Your task to perform on an android device: find which apps use the phone's location Image 0: 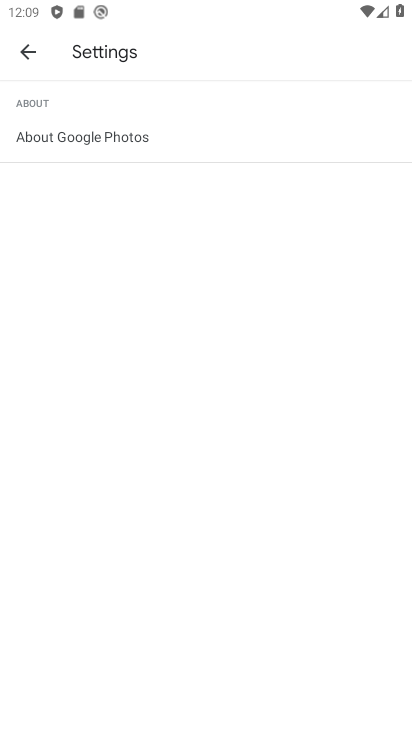
Step 0: press home button
Your task to perform on an android device: find which apps use the phone's location Image 1: 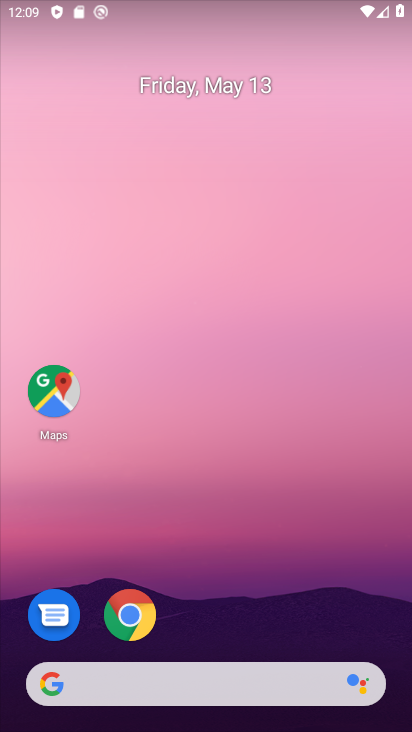
Step 1: drag from (181, 610) to (312, 207)
Your task to perform on an android device: find which apps use the phone's location Image 2: 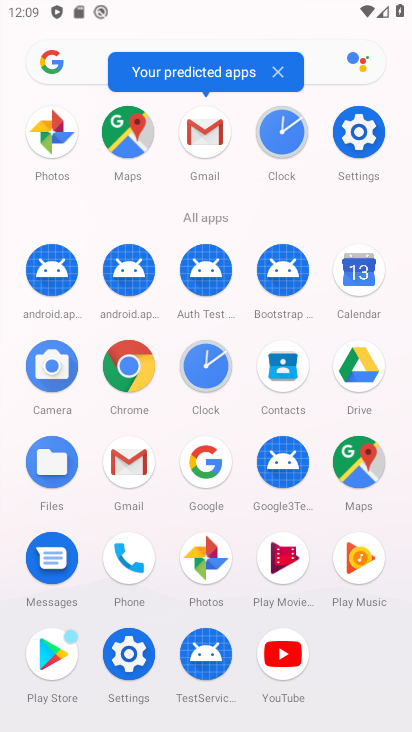
Step 2: click (141, 654)
Your task to perform on an android device: find which apps use the phone's location Image 3: 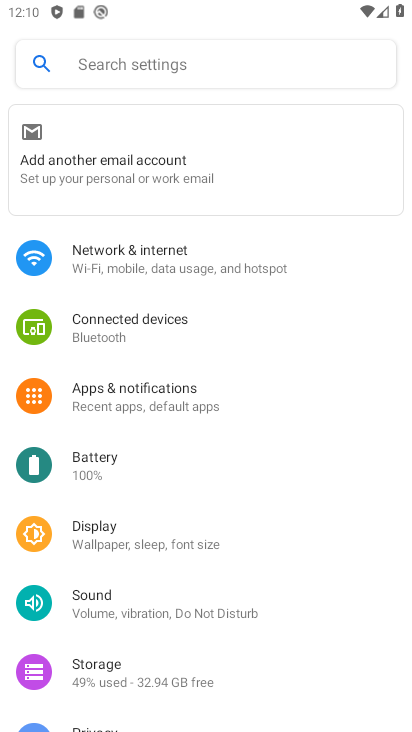
Step 3: drag from (117, 640) to (213, 249)
Your task to perform on an android device: find which apps use the phone's location Image 4: 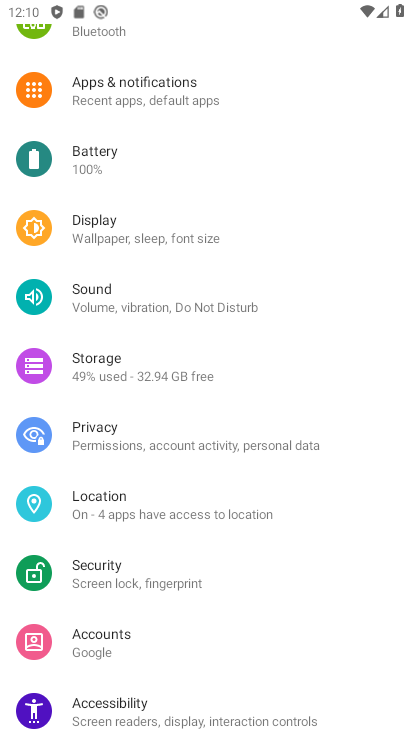
Step 4: click (130, 507)
Your task to perform on an android device: find which apps use the phone's location Image 5: 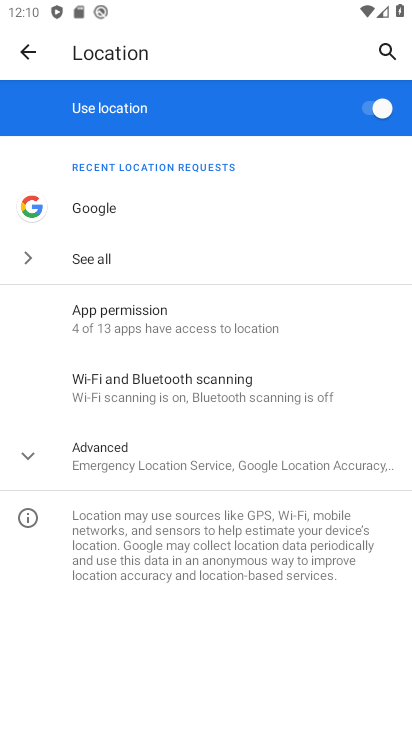
Step 5: click (183, 318)
Your task to perform on an android device: find which apps use the phone's location Image 6: 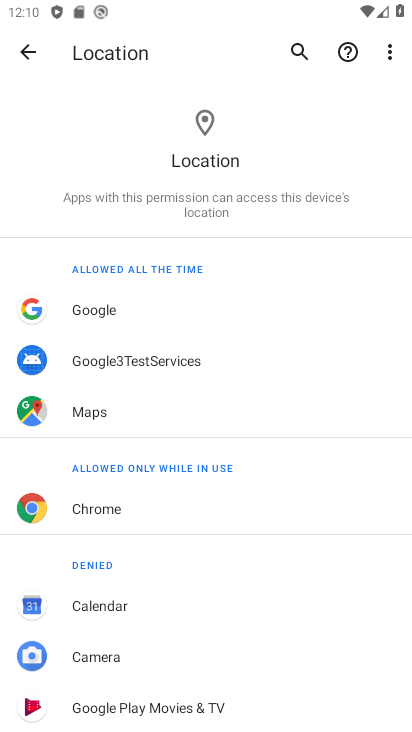
Step 6: task complete